Your task to perform on an android device: Go to Wikipedia Image 0: 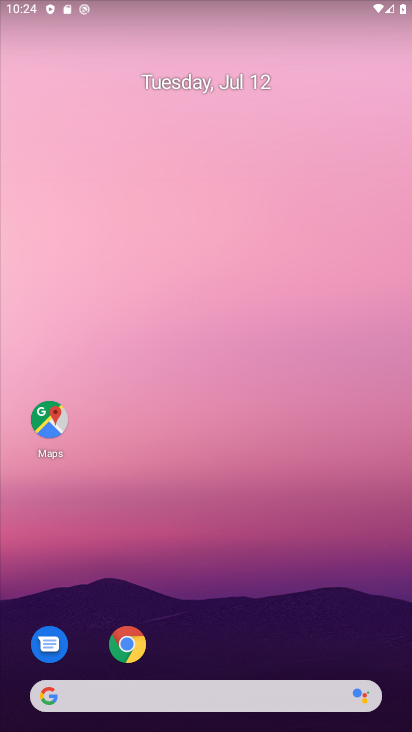
Step 0: click (134, 640)
Your task to perform on an android device: Go to Wikipedia Image 1: 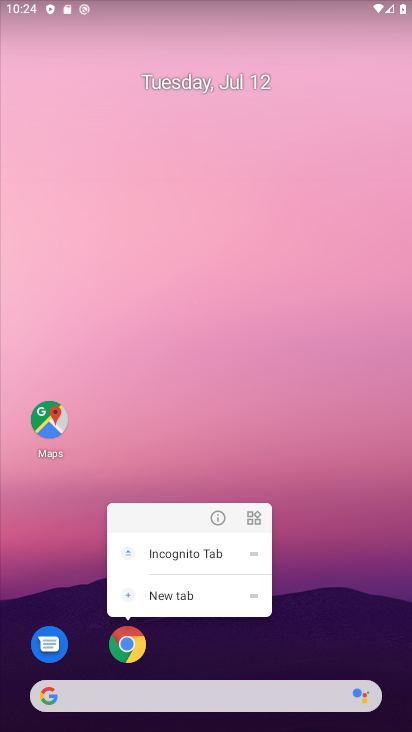
Step 1: click (134, 640)
Your task to perform on an android device: Go to Wikipedia Image 2: 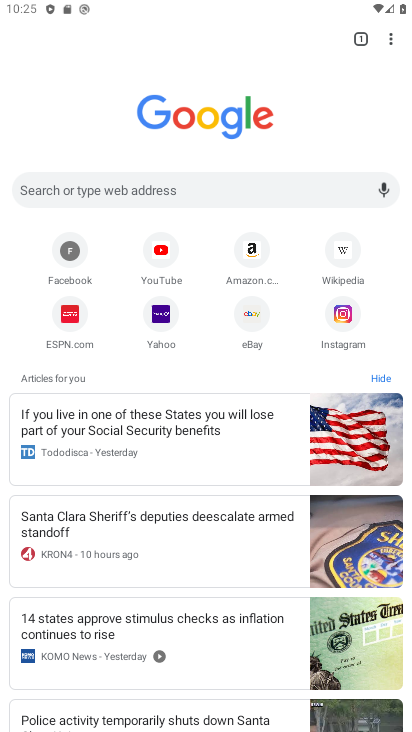
Step 2: click (344, 254)
Your task to perform on an android device: Go to Wikipedia Image 3: 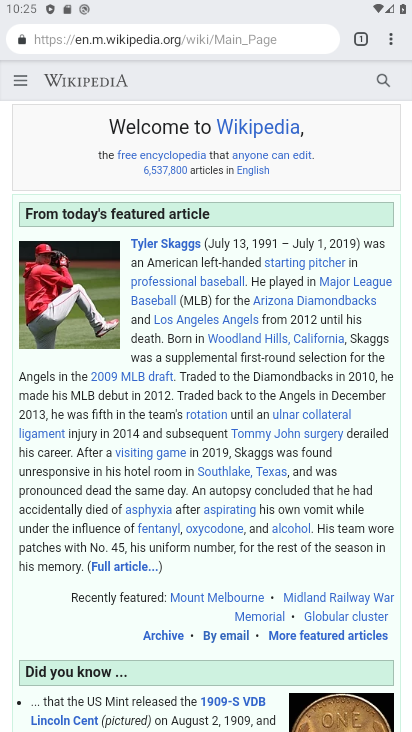
Step 3: task complete